Your task to perform on an android device: Search for "usb-a to usb-b" on bestbuy, select the first entry, add it to the cart, then select checkout. Image 0: 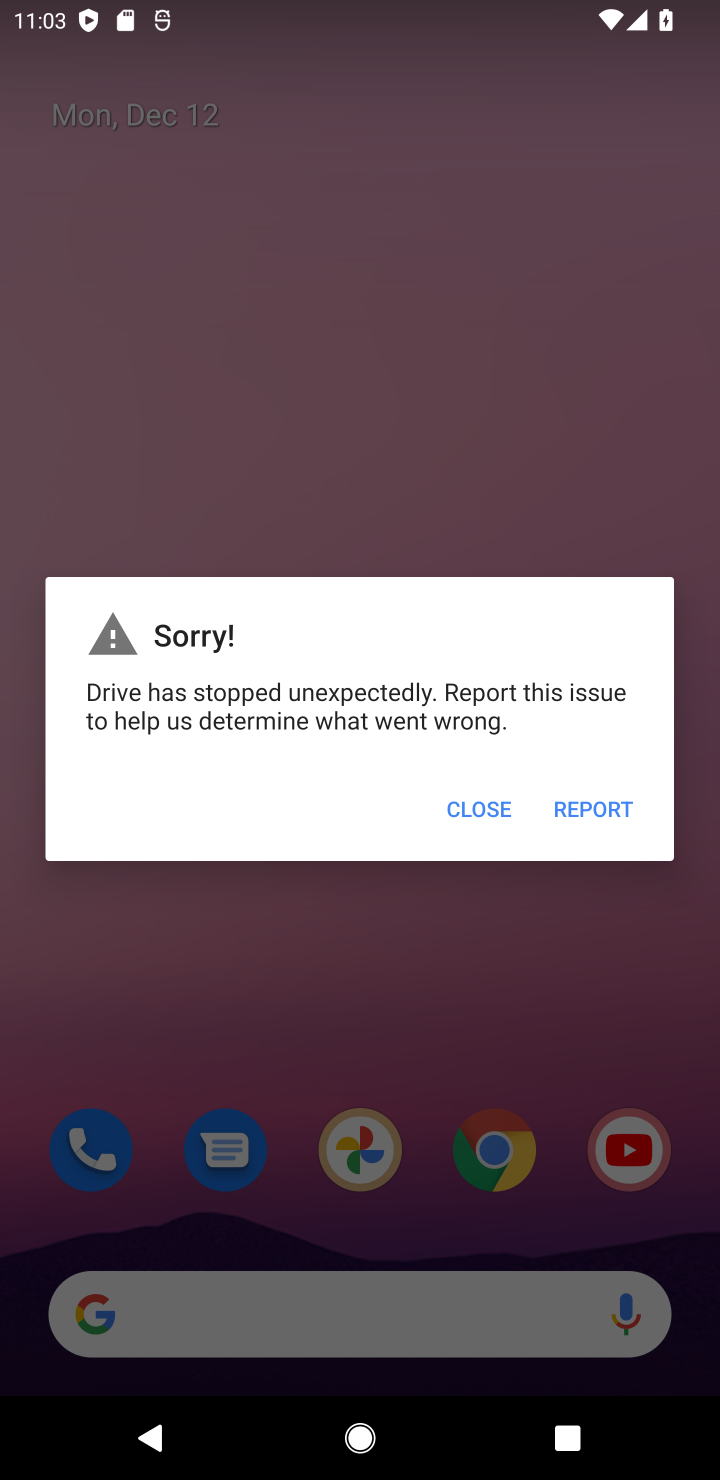
Step 0: press home button
Your task to perform on an android device: Search for "usb-a to usb-b" on bestbuy, select the first entry, add it to the cart, then select checkout. Image 1: 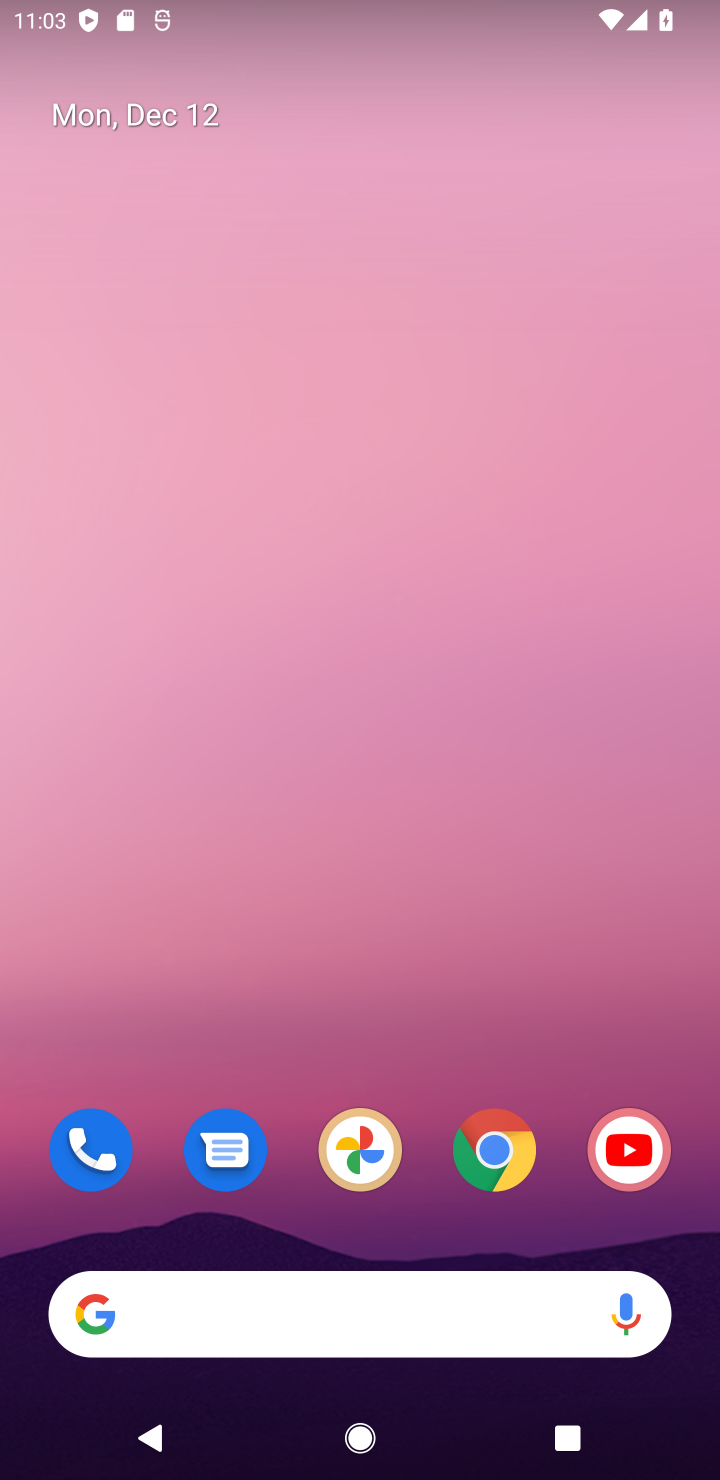
Step 1: click (480, 1158)
Your task to perform on an android device: Search for "usb-a to usb-b" on bestbuy, select the first entry, add it to the cart, then select checkout. Image 2: 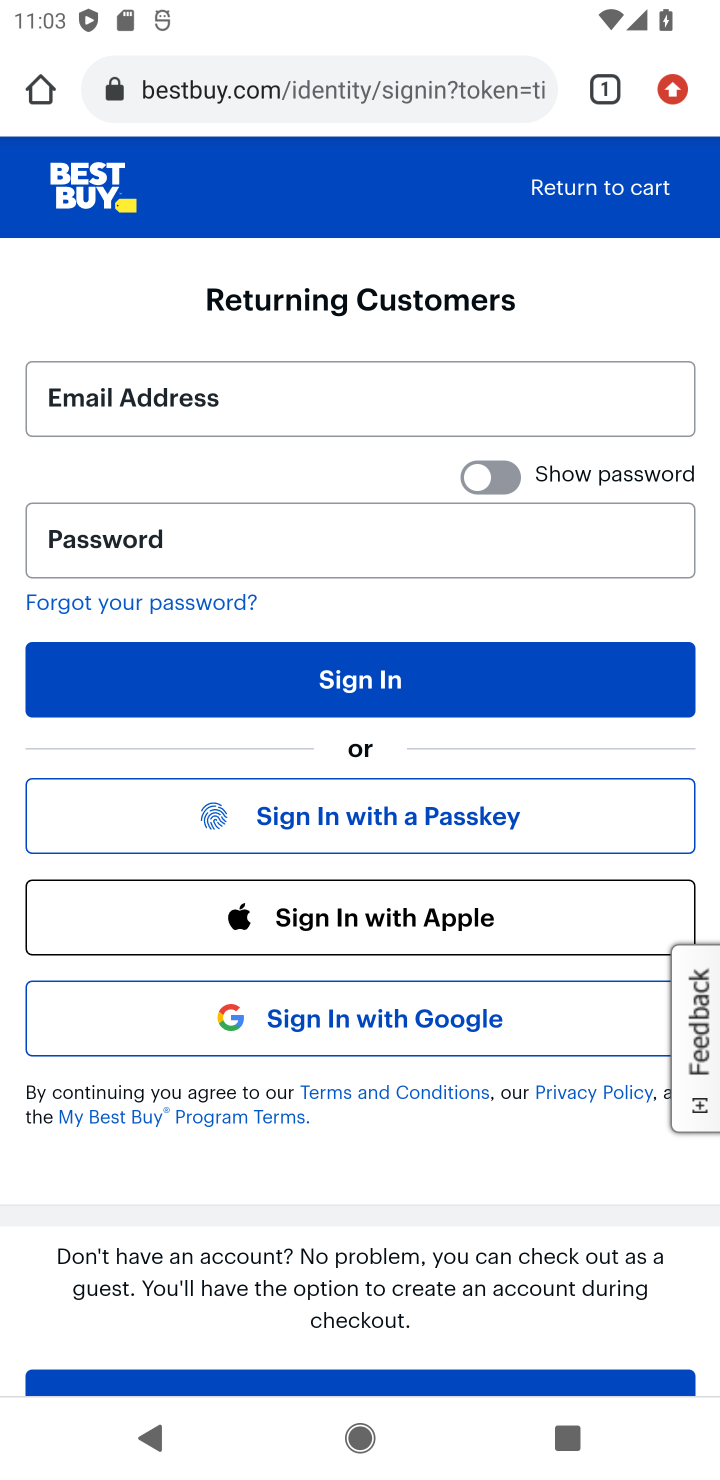
Step 2: press back button
Your task to perform on an android device: Search for "usb-a to usb-b" on bestbuy, select the first entry, add it to the cart, then select checkout. Image 3: 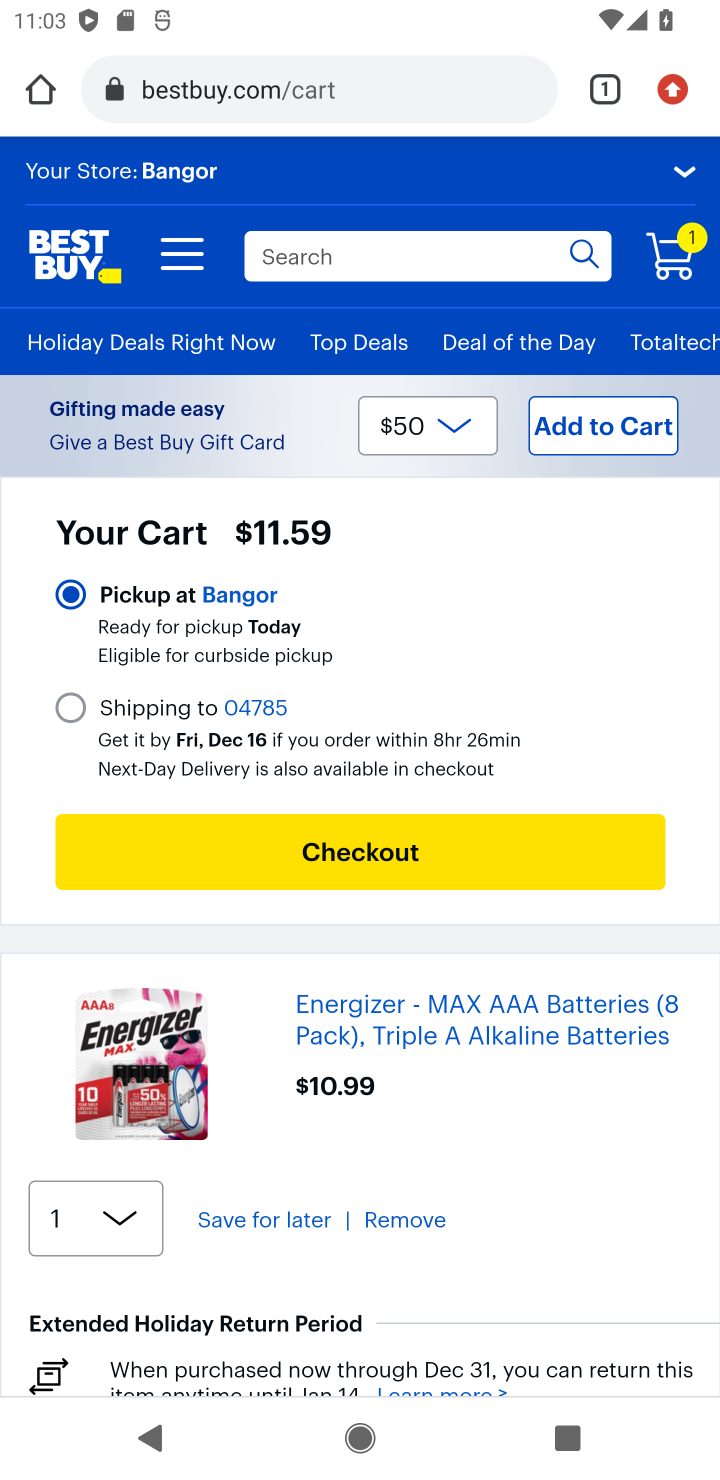
Step 3: click (287, 260)
Your task to perform on an android device: Search for "usb-a to usb-b" on bestbuy, select the first entry, add it to the cart, then select checkout. Image 4: 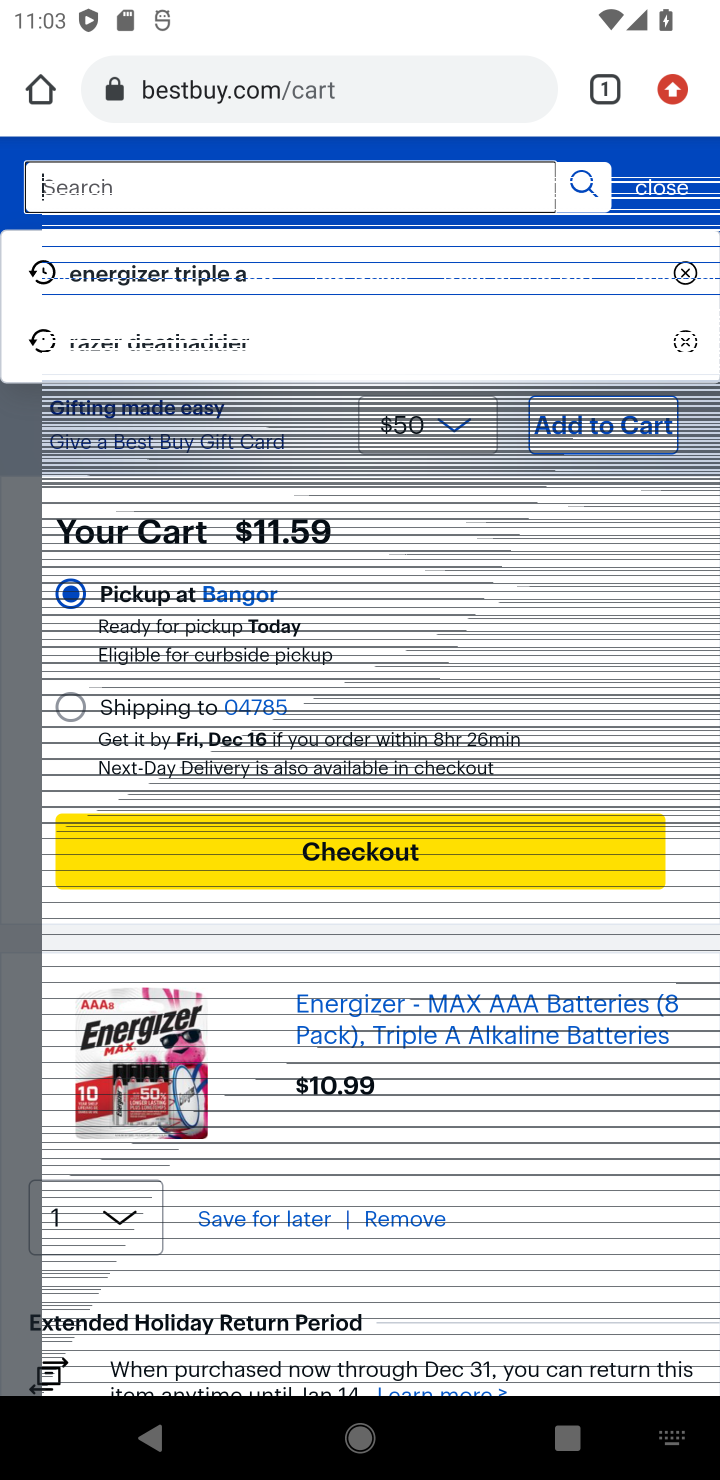
Step 4: type "usb-a to usb-b"
Your task to perform on an android device: Search for "usb-a to usb-b" on bestbuy, select the first entry, add it to the cart, then select checkout. Image 5: 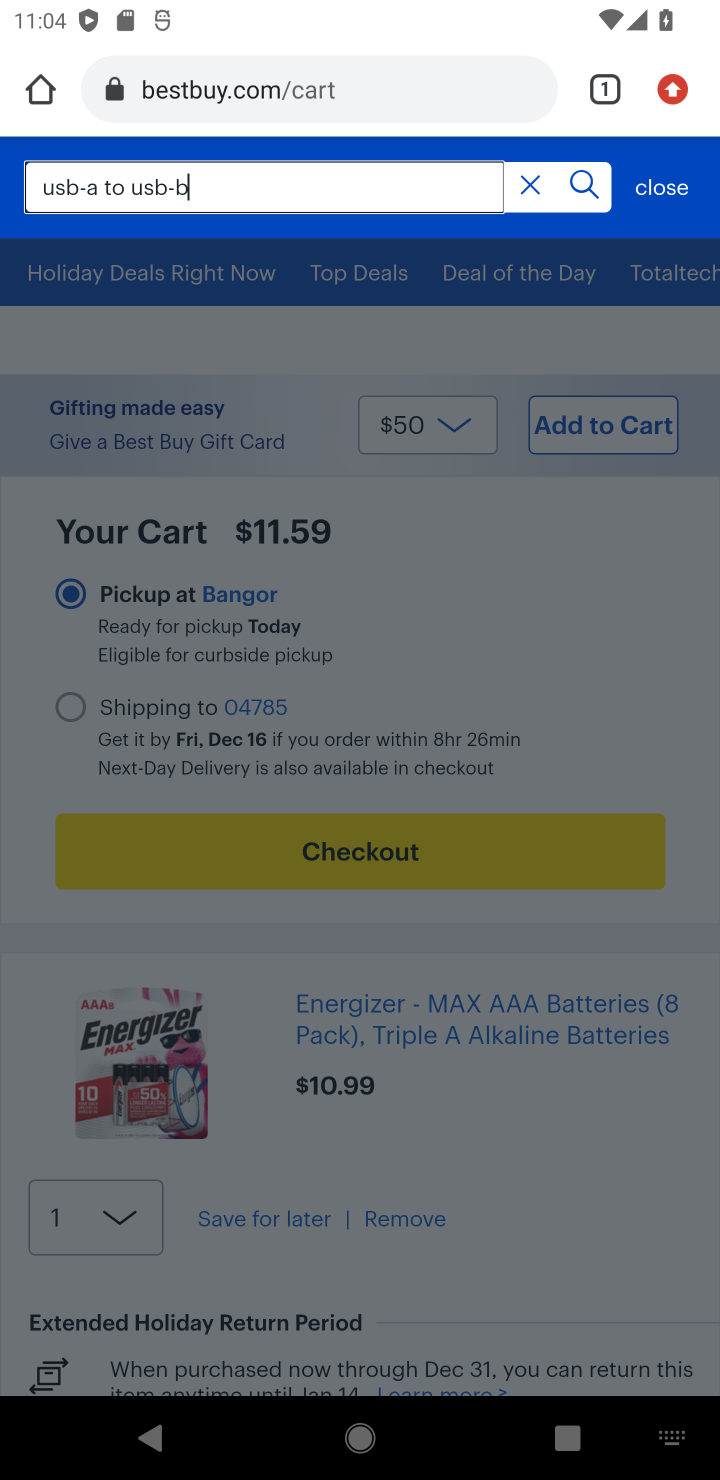
Step 5: click (590, 185)
Your task to perform on an android device: Search for "usb-a to usb-b" on bestbuy, select the first entry, add it to the cart, then select checkout. Image 6: 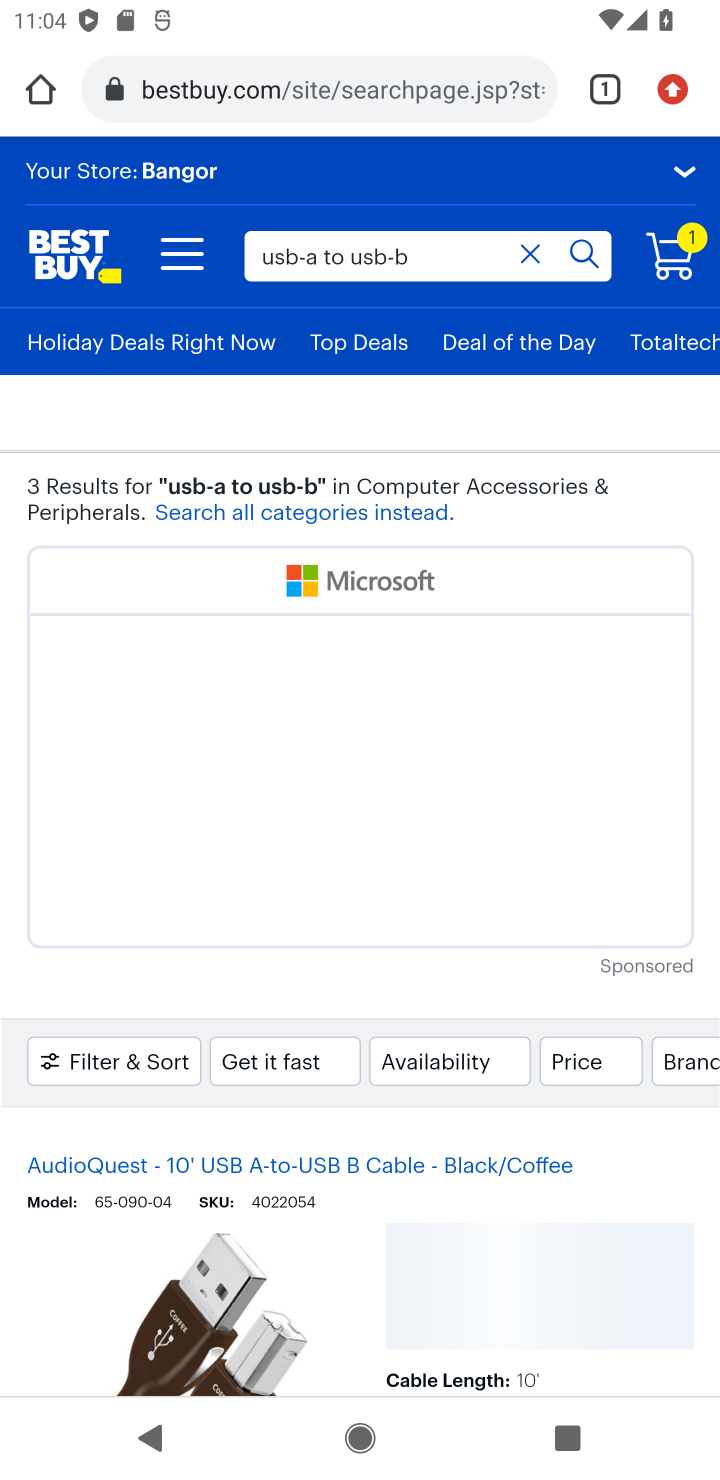
Step 6: drag from (281, 1038) to (302, 638)
Your task to perform on an android device: Search for "usb-a to usb-b" on bestbuy, select the first entry, add it to the cart, then select checkout. Image 7: 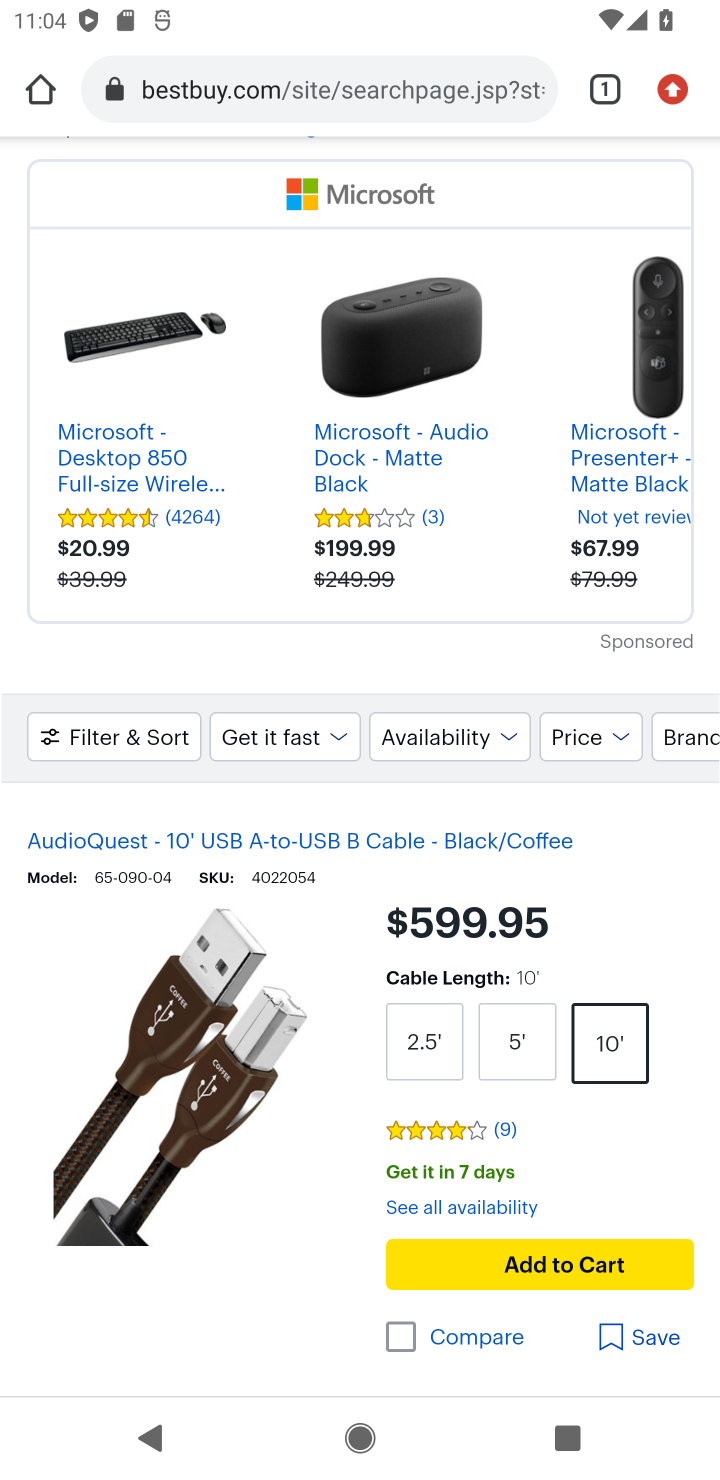
Step 7: drag from (299, 1023) to (316, 683)
Your task to perform on an android device: Search for "usb-a to usb-b" on bestbuy, select the first entry, add it to the cart, then select checkout. Image 8: 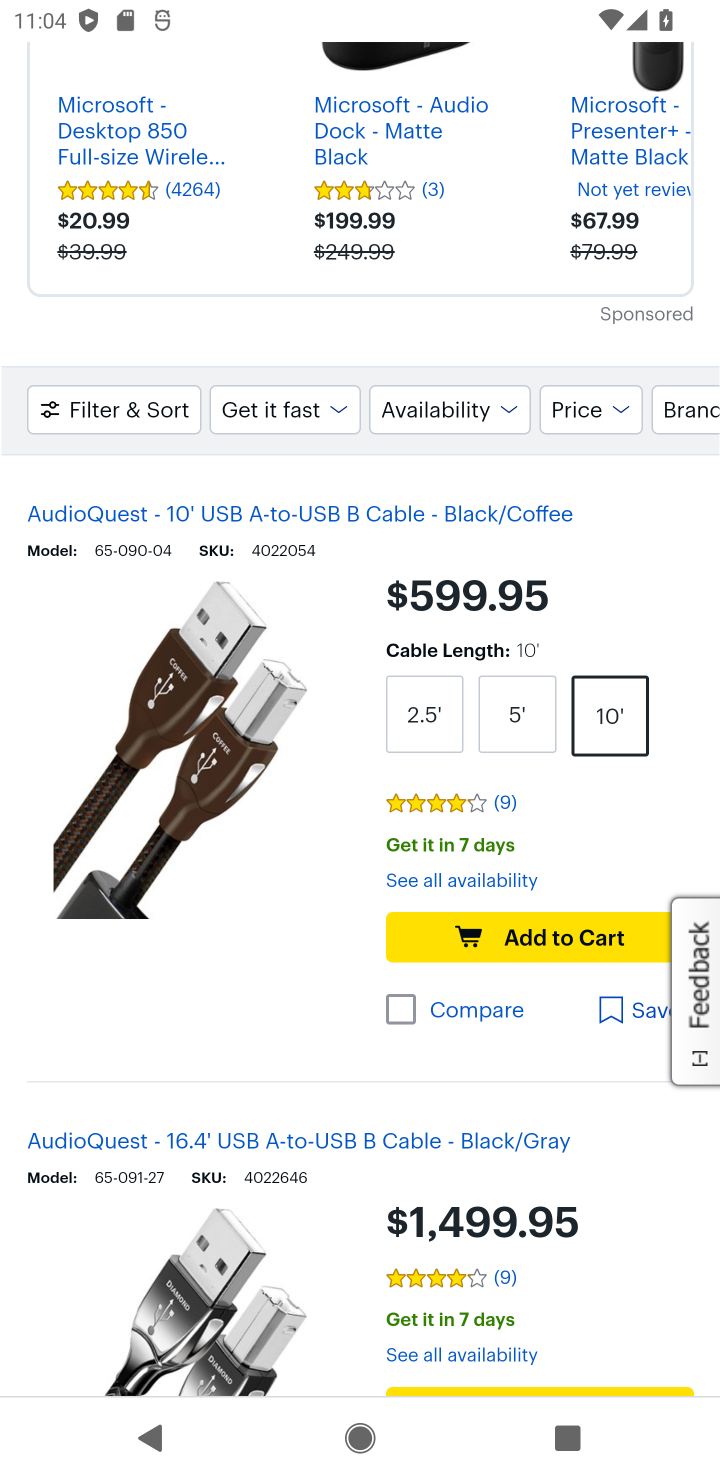
Step 8: click (532, 946)
Your task to perform on an android device: Search for "usb-a to usb-b" on bestbuy, select the first entry, add it to the cart, then select checkout. Image 9: 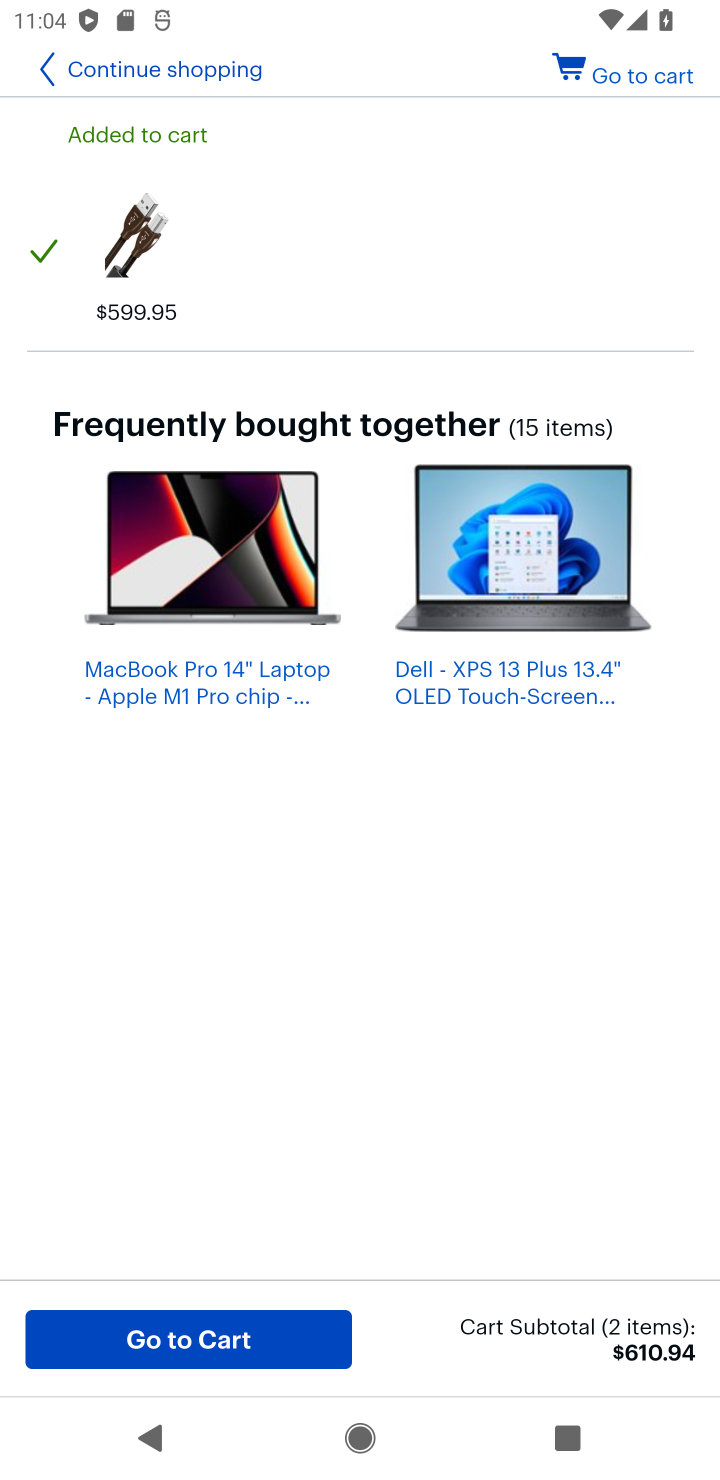
Step 9: click (644, 81)
Your task to perform on an android device: Search for "usb-a to usb-b" on bestbuy, select the first entry, add it to the cart, then select checkout. Image 10: 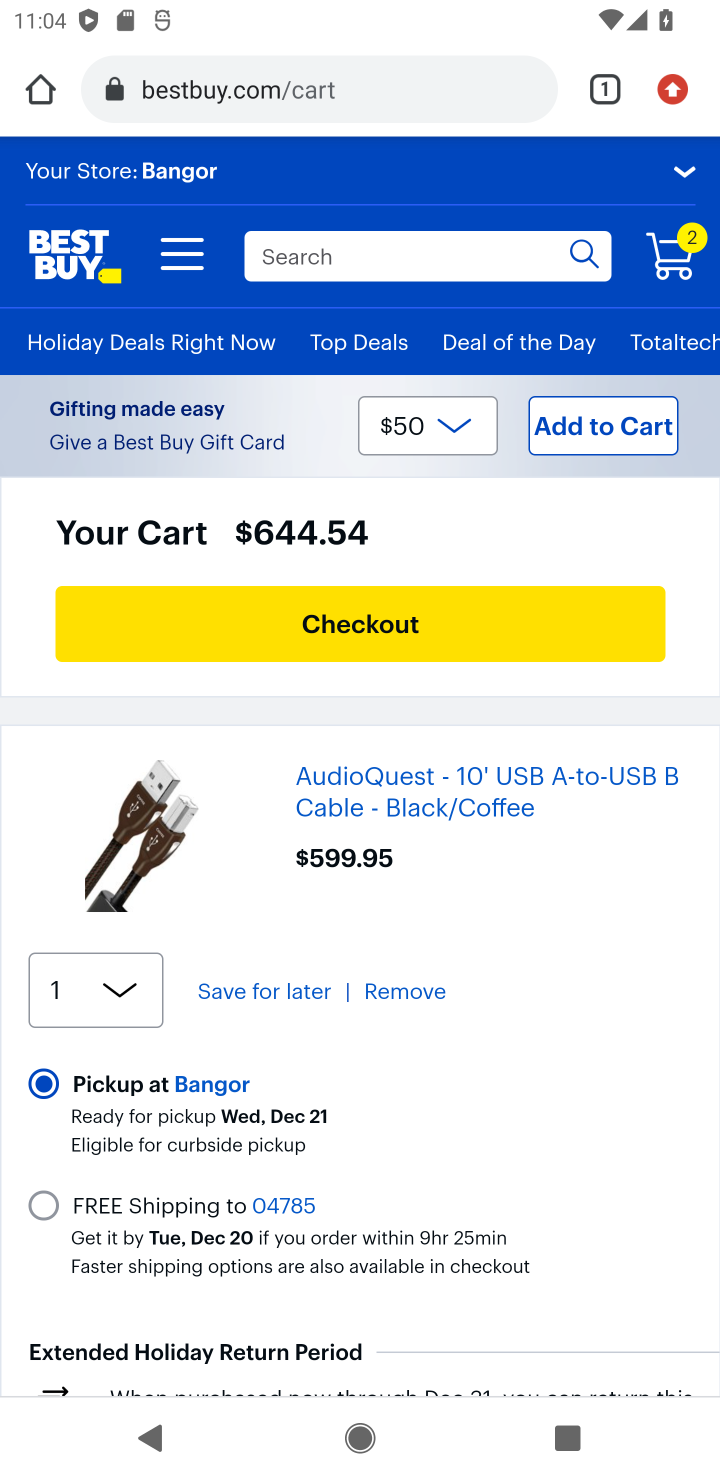
Step 10: click (401, 620)
Your task to perform on an android device: Search for "usb-a to usb-b" on bestbuy, select the first entry, add it to the cart, then select checkout. Image 11: 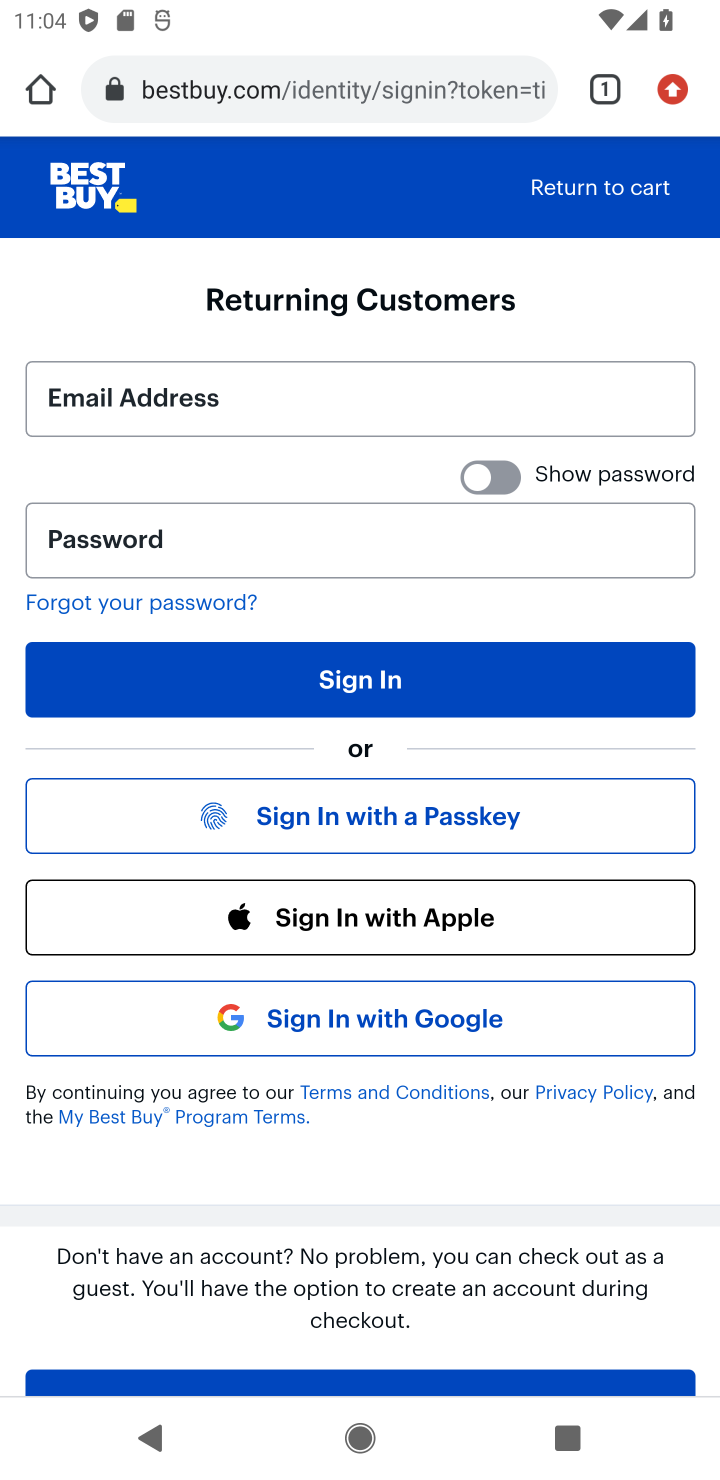
Step 11: task complete